Your task to perform on an android device: manage bookmarks in the chrome app Image 0: 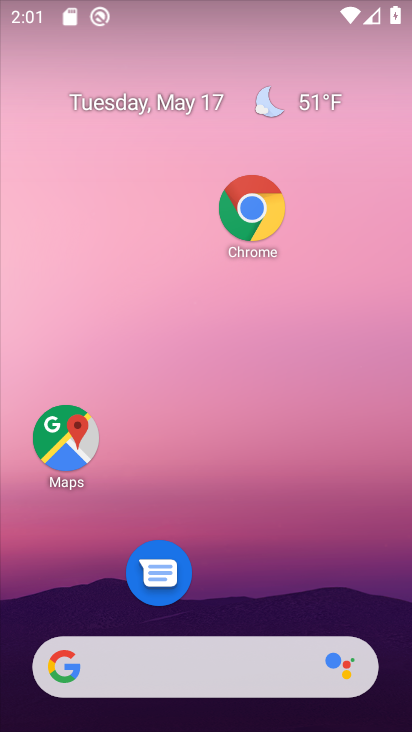
Step 0: drag from (223, 621) to (225, 4)
Your task to perform on an android device: manage bookmarks in the chrome app Image 1: 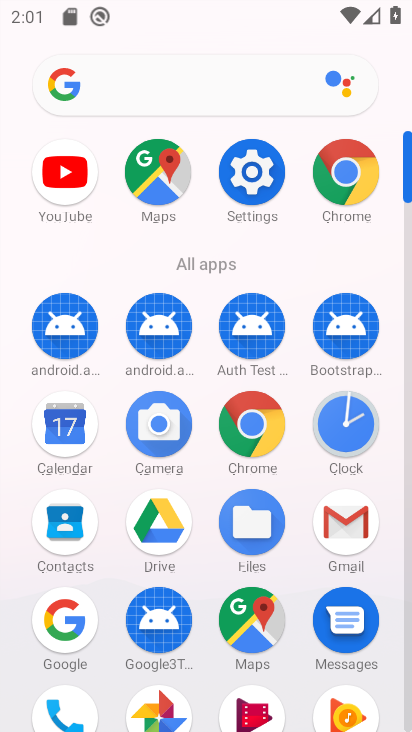
Step 1: click (256, 435)
Your task to perform on an android device: manage bookmarks in the chrome app Image 2: 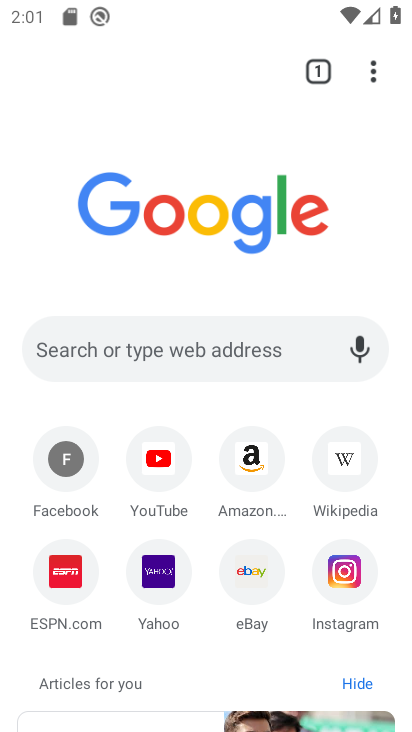
Step 2: click (372, 90)
Your task to perform on an android device: manage bookmarks in the chrome app Image 3: 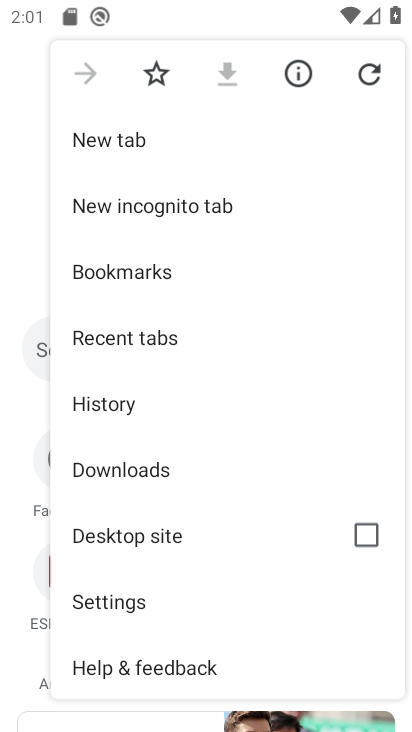
Step 3: click (137, 256)
Your task to perform on an android device: manage bookmarks in the chrome app Image 4: 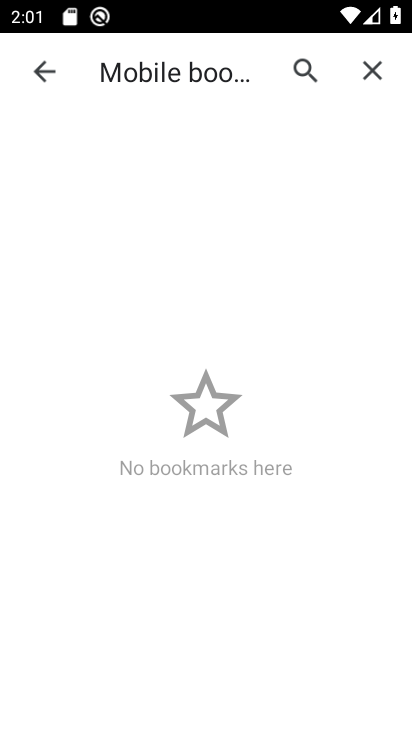
Step 4: task complete